Your task to perform on an android device: change notifications settings Image 0: 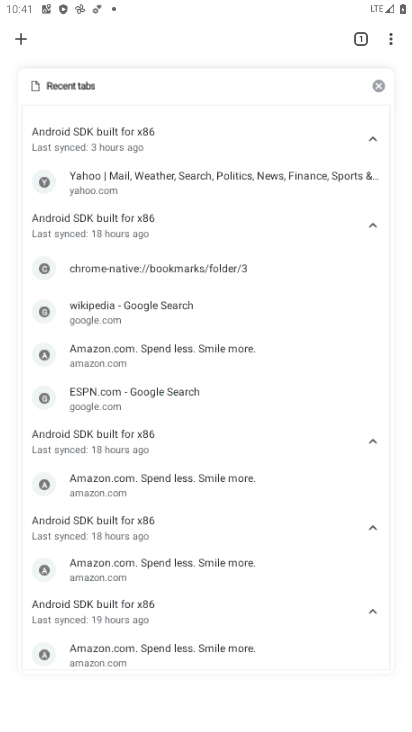
Step 0: press home button
Your task to perform on an android device: change notifications settings Image 1: 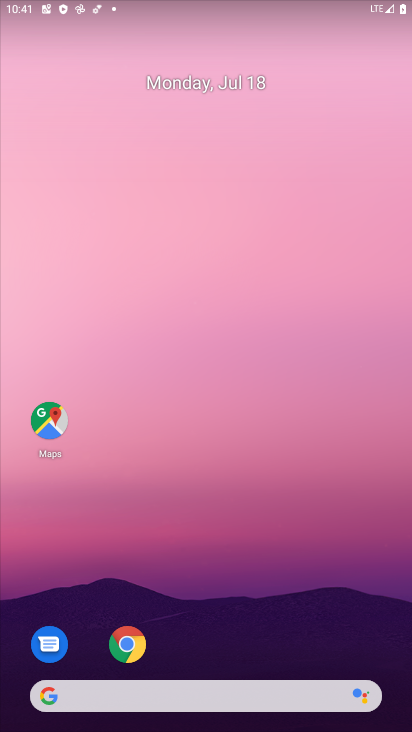
Step 1: drag from (343, 621) to (342, 126)
Your task to perform on an android device: change notifications settings Image 2: 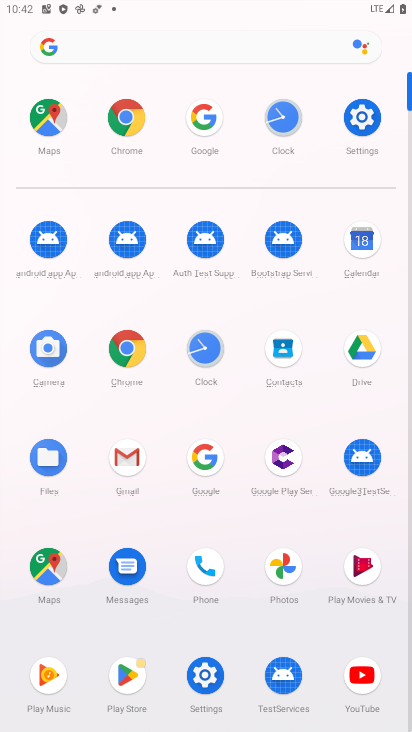
Step 2: click (365, 122)
Your task to perform on an android device: change notifications settings Image 3: 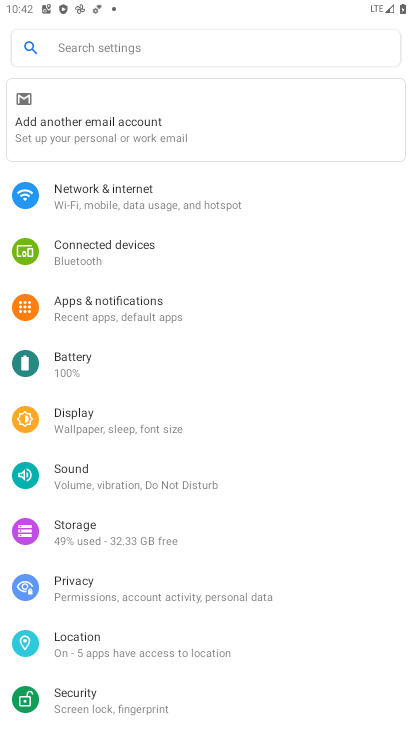
Step 3: drag from (317, 529) to (327, 401)
Your task to perform on an android device: change notifications settings Image 4: 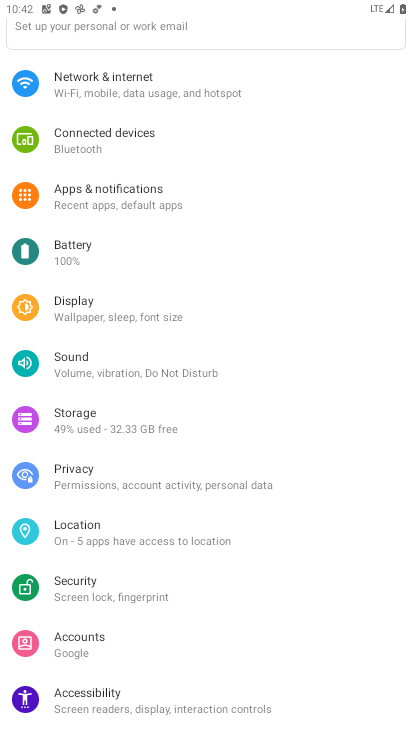
Step 4: drag from (344, 551) to (353, 456)
Your task to perform on an android device: change notifications settings Image 5: 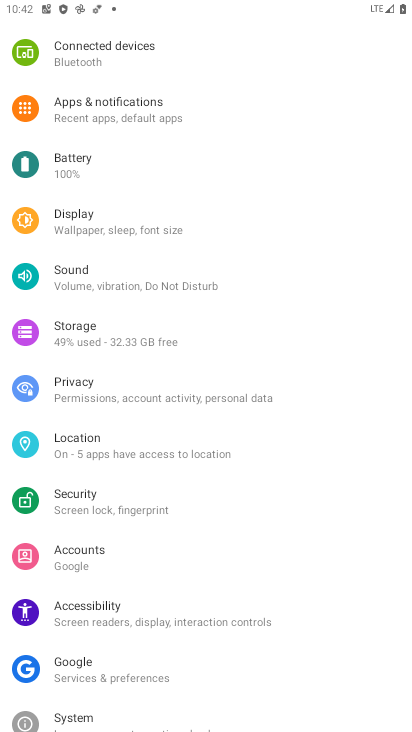
Step 5: drag from (335, 578) to (343, 472)
Your task to perform on an android device: change notifications settings Image 6: 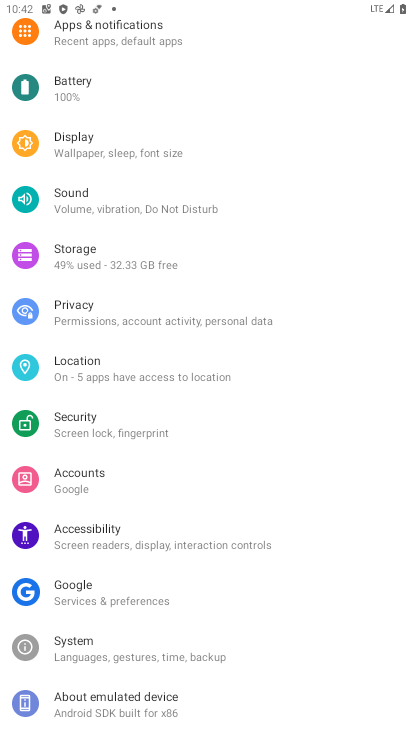
Step 6: drag from (335, 586) to (336, 477)
Your task to perform on an android device: change notifications settings Image 7: 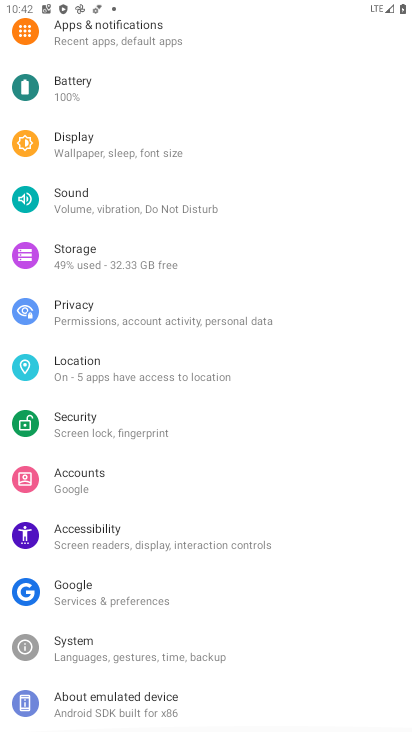
Step 7: drag from (335, 368) to (327, 438)
Your task to perform on an android device: change notifications settings Image 8: 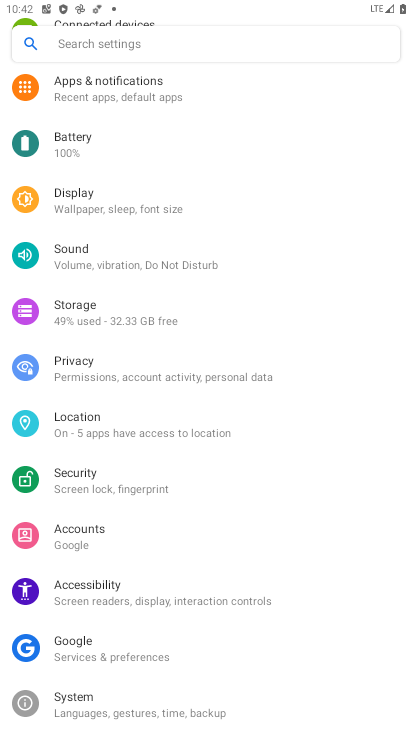
Step 8: drag from (325, 322) to (322, 415)
Your task to perform on an android device: change notifications settings Image 9: 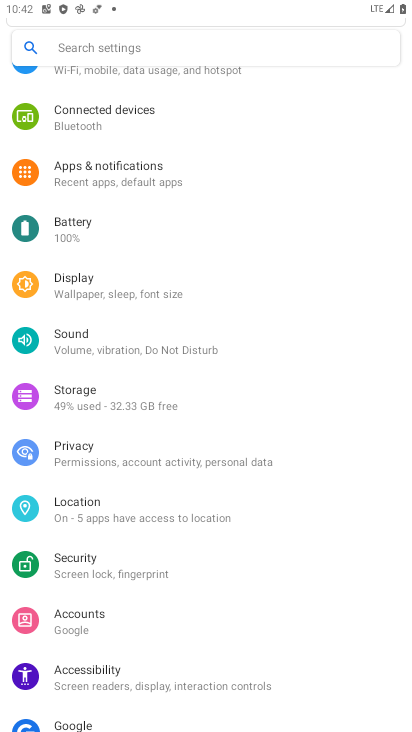
Step 9: drag from (326, 312) to (327, 404)
Your task to perform on an android device: change notifications settings Image 10: 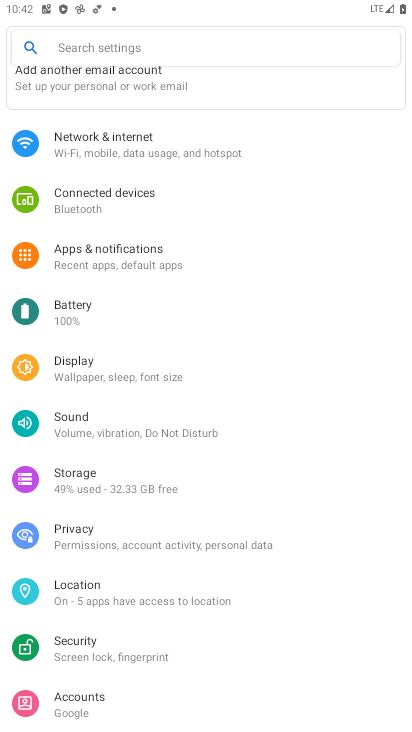
Step 10: drag from (312, 288) to (317, 456)
Your task to perform on an android device: change notifications settings Image 11: 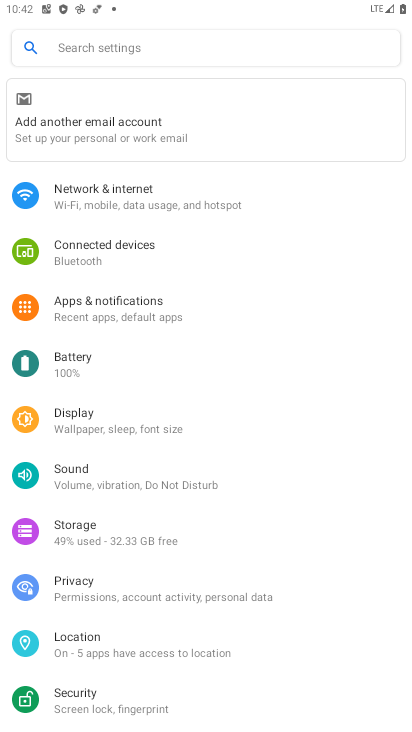
Step 11: click (173, 314)
Your task to perform on an android device: change notifications settings Image 12: 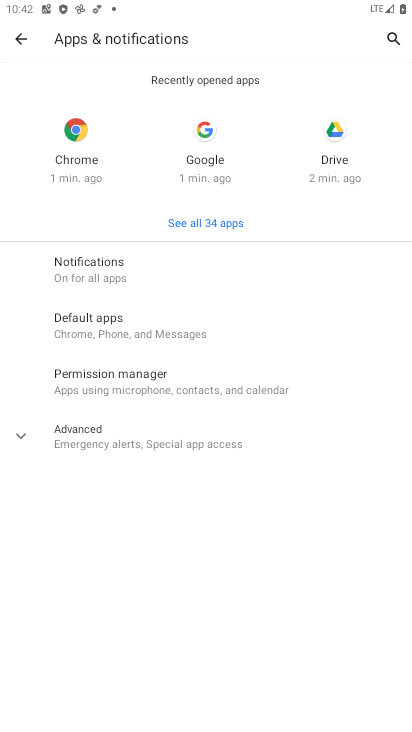
Step 12: click (142, 266)
Your task to perform on an android device: change notifications settings Image 13: 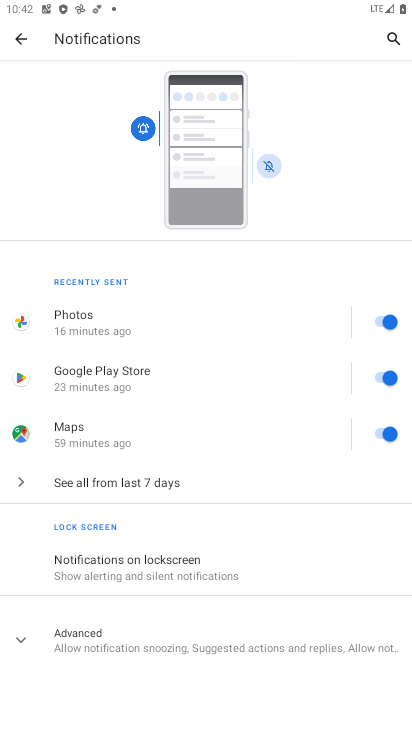
Step 13: click (382, 437)
Your task to perform on an android device: change notifications settings Image 14: 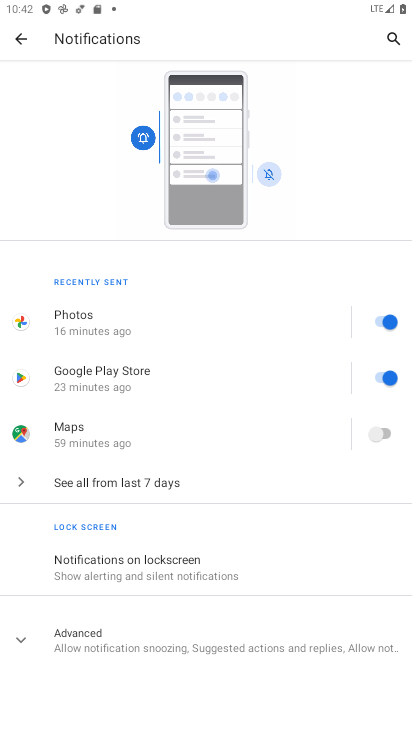
Step 14: click (383, 381)
Your task to perform on an android device: change notifications settings Image 15: 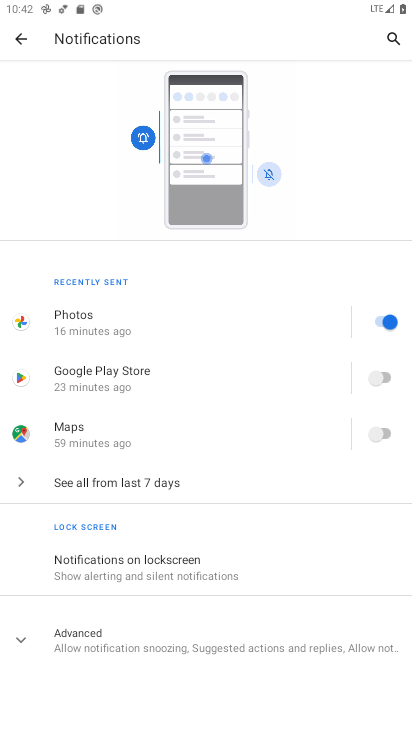
Step 15: click (384, 320)
Your task to perform on an android device: change notifications settings Image 16: 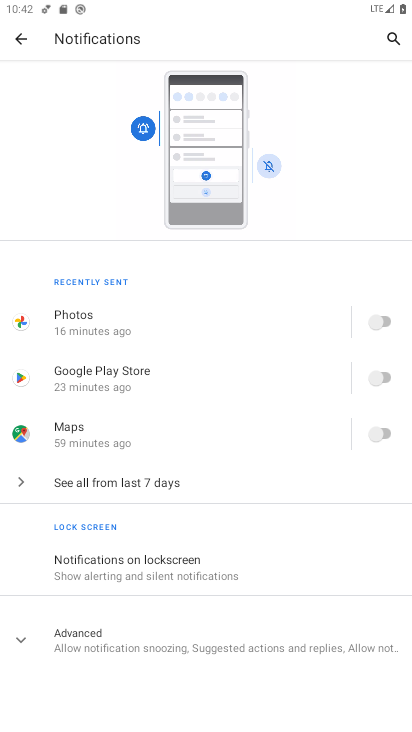
Step 16: task complete